Your task to perform on an android device: Check the weather Image 0: 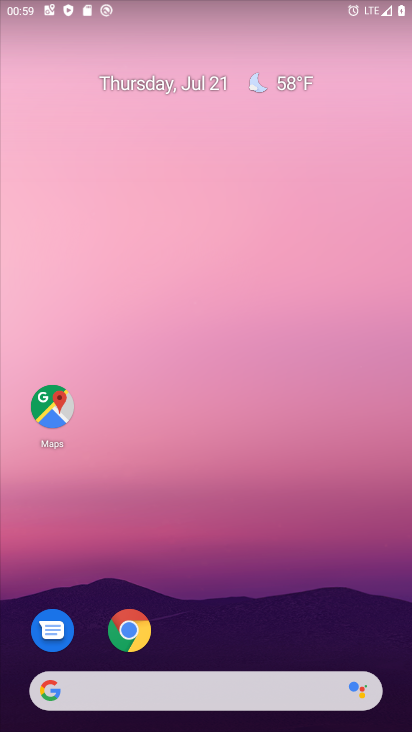
Step 0: click (205, 688)
Your task to perform on an android device: Check the weather Image 1: 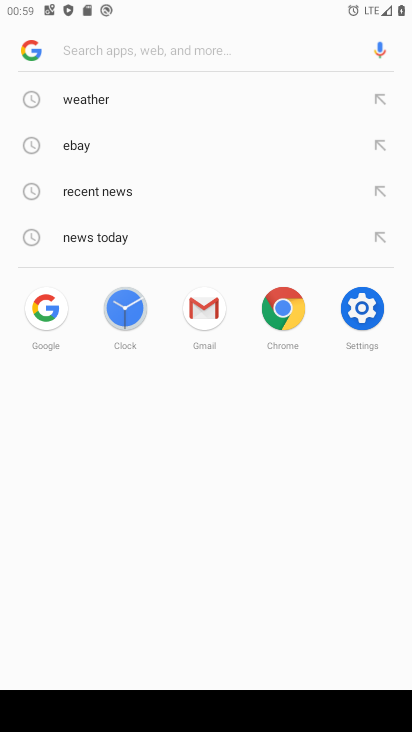
Step 1: click (110, 102)
Your task to perform on an android device: Check the weather Image 2: 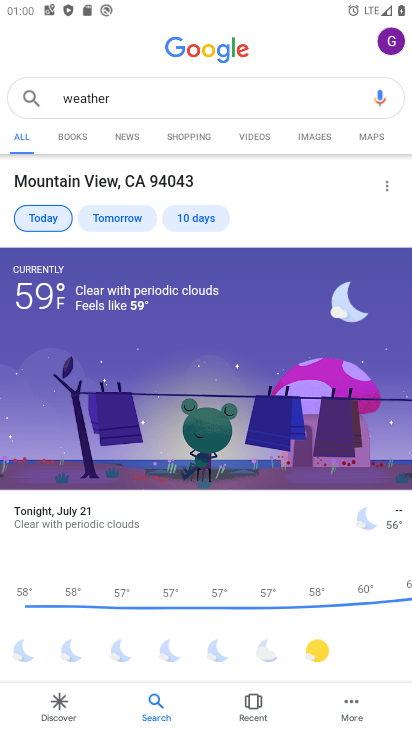
Step 2: task complete